Your task to perform on an android device: Go to Reddit.com Image 0: 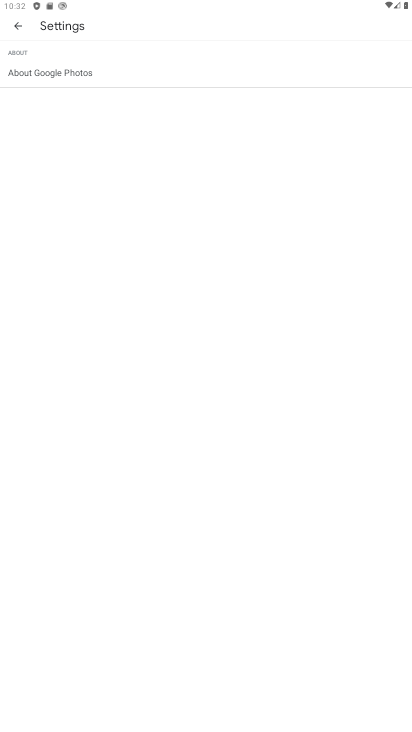
Step 0: press home button
Your task to perform on an android device: Go to Reddit.com Image 1: 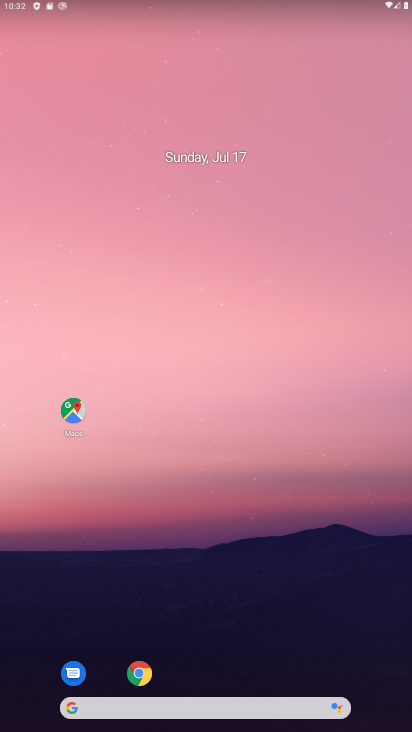
Step 1: click (175, 711)
Your task to perform on an android device: Go to Reddit.com Image 2: 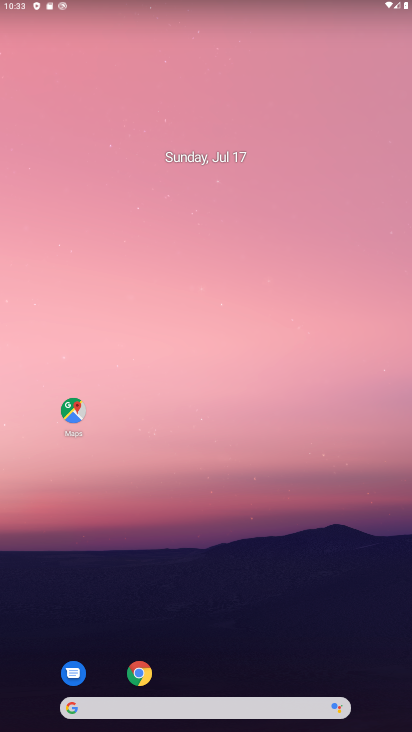
Step 2: type "Reddit"
Your task to perform on an android device: Go to Reddit.com Image 3: 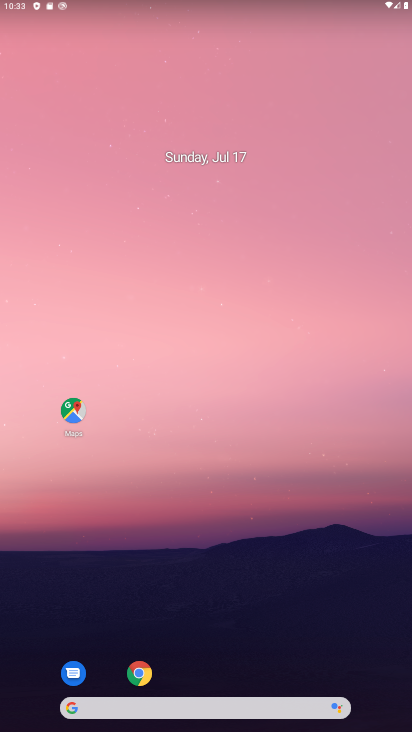
Step 3: click (136, 678)
Your task to perform on an android device: Go to Reddit.com Image 4: 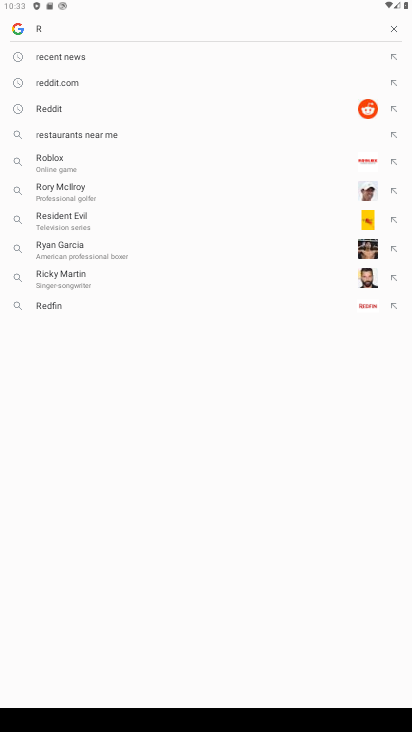
Step 4: click (55, 24)
Your task to perform on an android device: Go to Reddit.com Image 5: 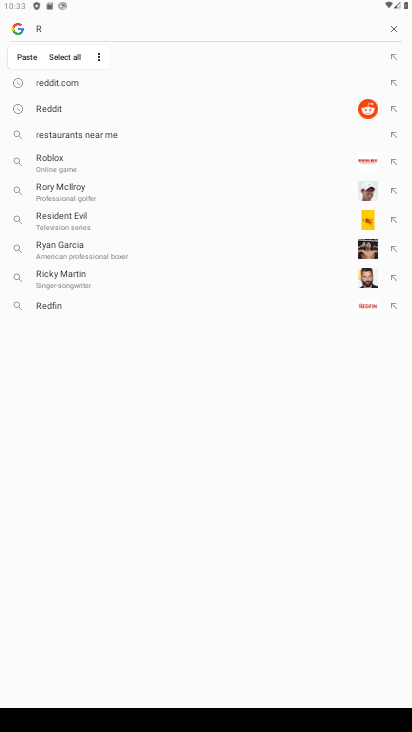
Step 5: type "eddit.com"
Your task to perform on an android device: Go to Reddit.com Image 6: 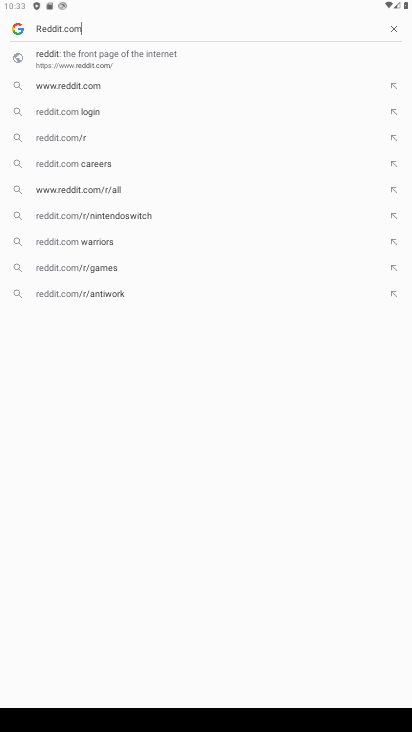
Step 6: press enter
Your task to perform on an android device: Go to Reddit.com Image 7: 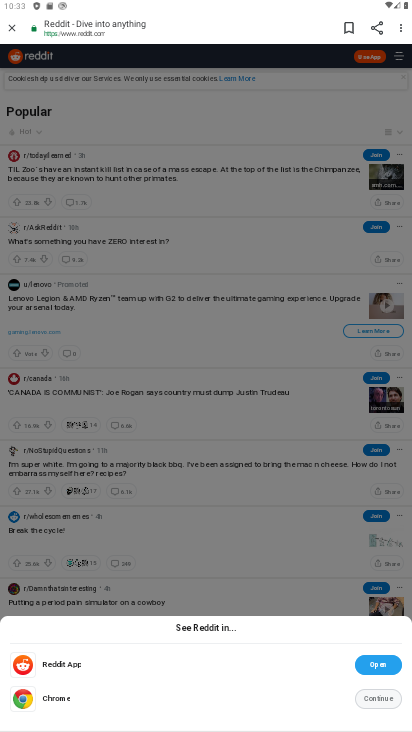
Step 7: click (388, 700)
Your task to perform on an android device: Go to Reddit.com Image 8: 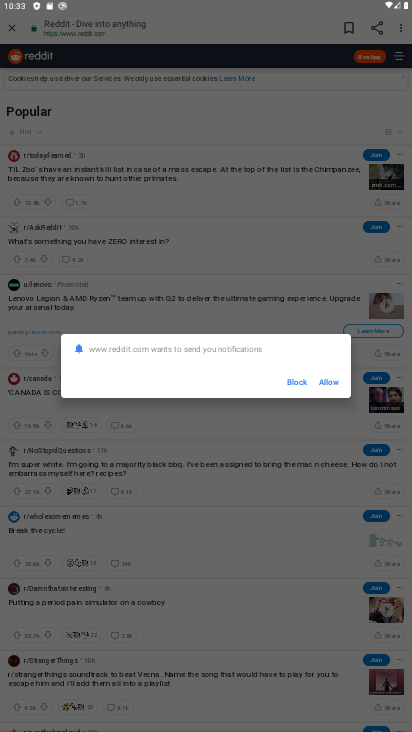
Step 8: click (328, 384)
Your task to perform on an android device: Go to Reddit.com Image 9: 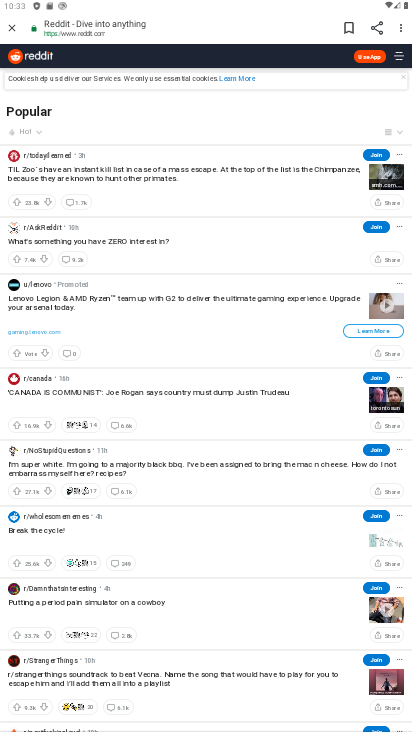
Step 9: task complete